Your task to perform on an android device: Open internet settings Image 0: 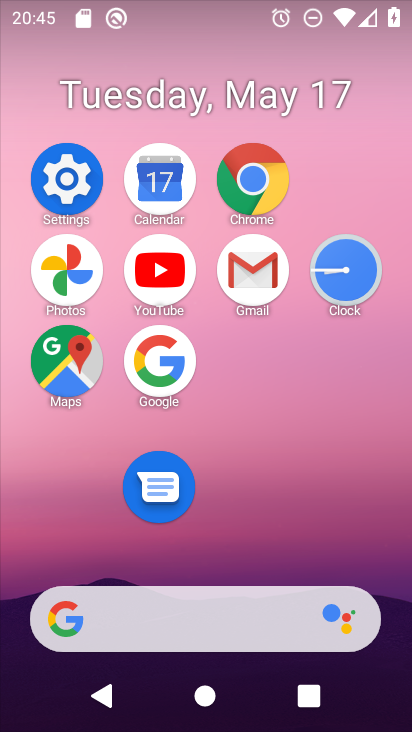
Step 0: click (74, 188)
Your task to perform on an android device: Open internet settings Image 1: 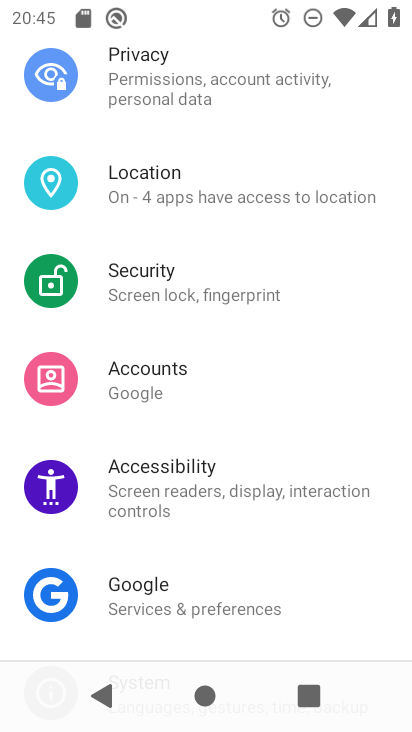
Step 1: drag from (286, 175) to (279, 515)
Your task to perform on an android device: Open internet settings Image 2: 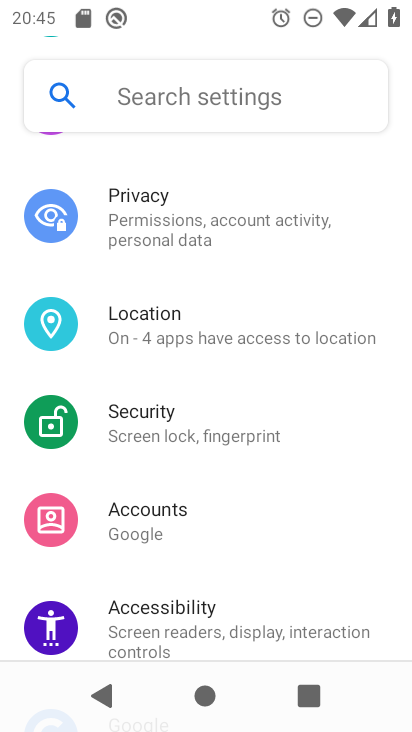
Step 2: drag from (337, 251) to (360, 615)
Your task to perform on an android device: Open internet settings Image 3: 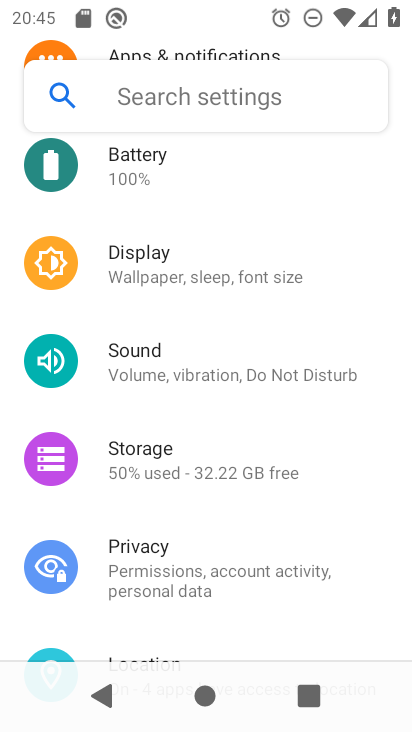
Step 3: drag from (338, 187) to (328, 555)
Your task to perform on an android device: Open internet settings Image 4: 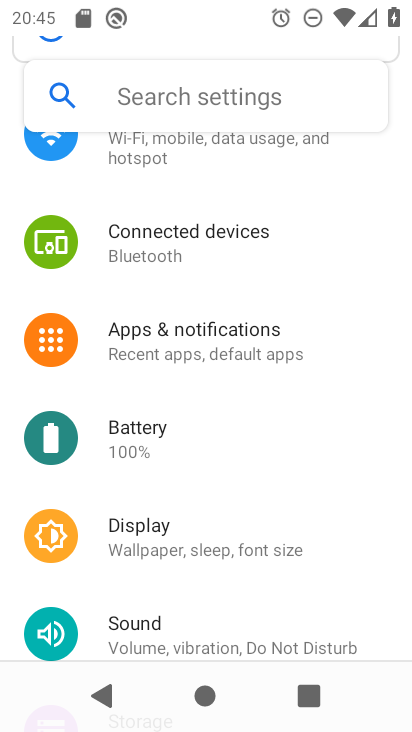
Step 4: drag from (264, 145) to (286, 529)
Your task to perform on an android device: Open internet settings Image 5: 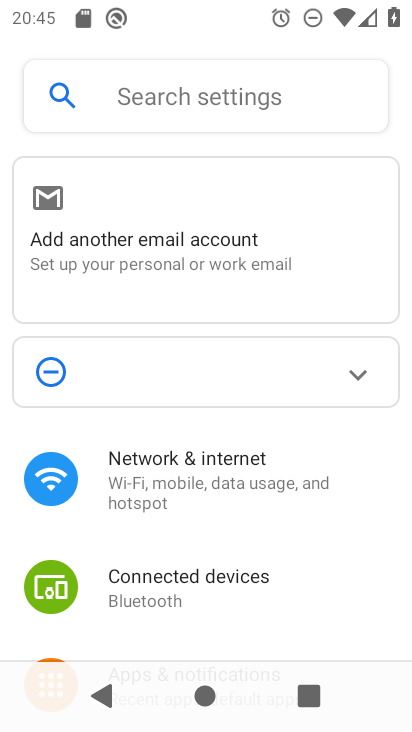
Step 5: click (264, 495)
Your task to perform on an android device: Open internet settings Image 6: 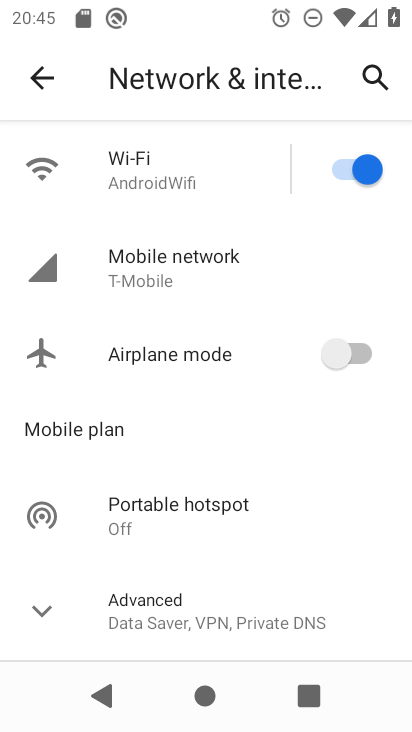
Step 6: click (207, 293)
Your task to perform on an android device: Open internet settings Image 7: 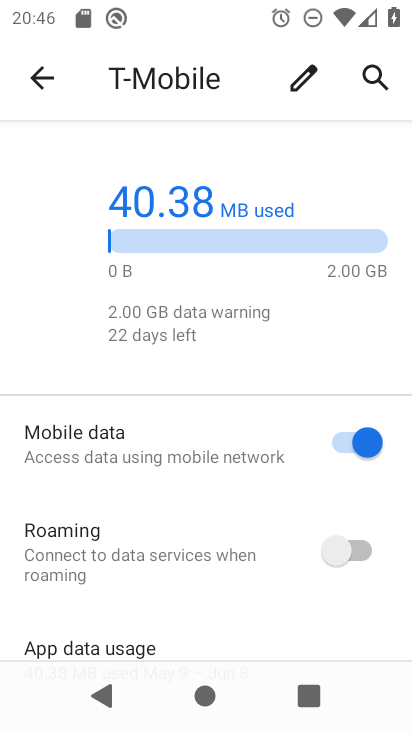
Step 7: task complete